Your task to perform on an android device: Go to sound settings Image 0: 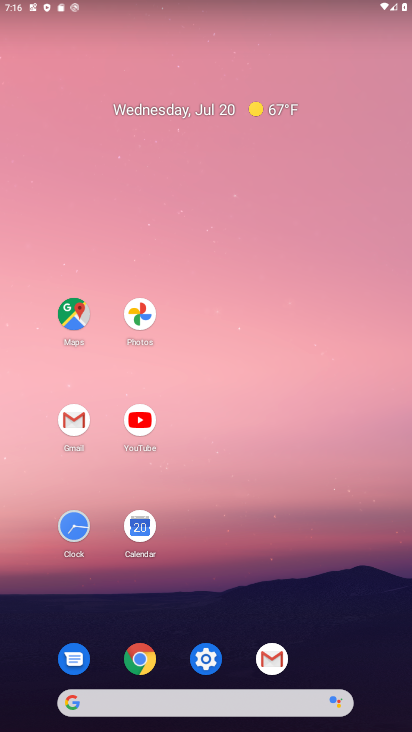
Step 0: click (207, 659)
Your task to perform on an android device: Go to sound settings Image 1: 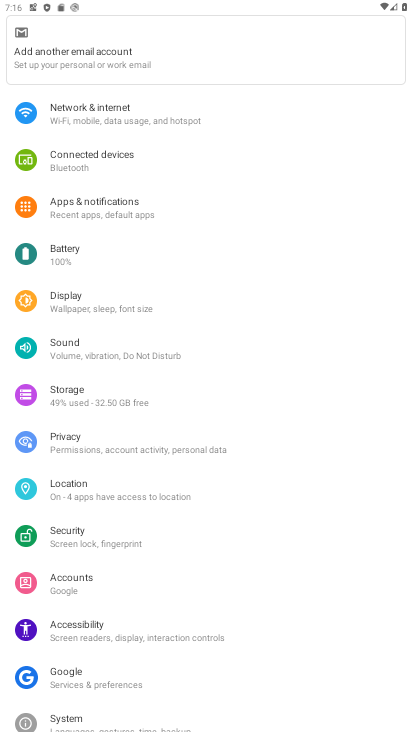
Step 1: click (65, 344)
Your task to perform on an android device: Go to sound settings Image 2: 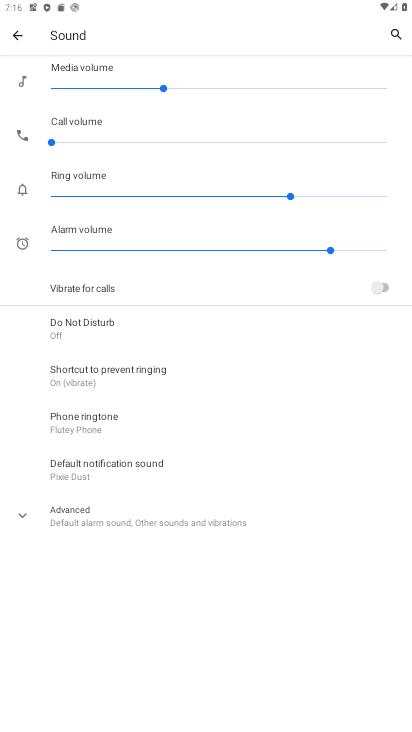
Step 2: task complete